Your task to perform on an android device: Open Google Maps and go to "Timeline" Image 0: 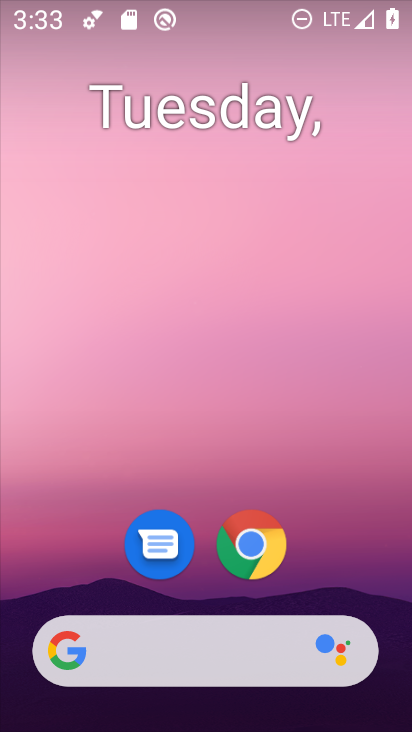
Step 0: drag from (385, 580) to (387, 106)
Your task to perform on an android device: Open Google Maps and go to "Timeline" Image 1: 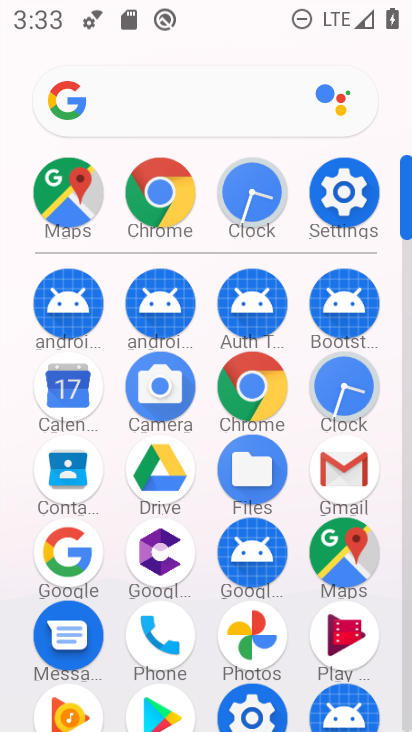
Step 1: click (362, 558)
Your task to perform on an android device: Open Google Maps and go to "Timeline" Image 2: 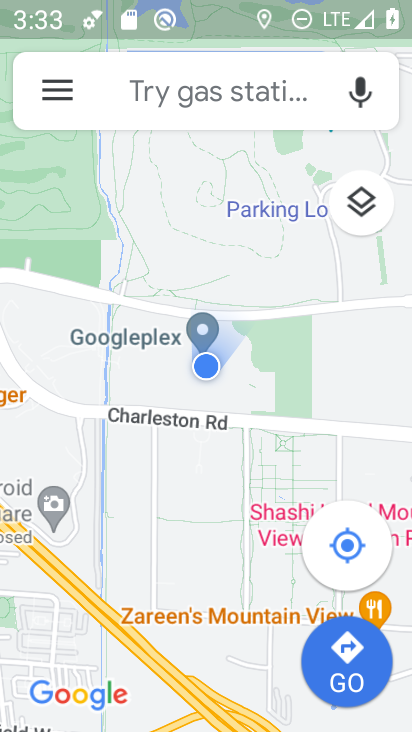
Step 2: click (63, 97)
Your task to perform on an android device: Open Google Maps and go to "Timeline" Image 3: 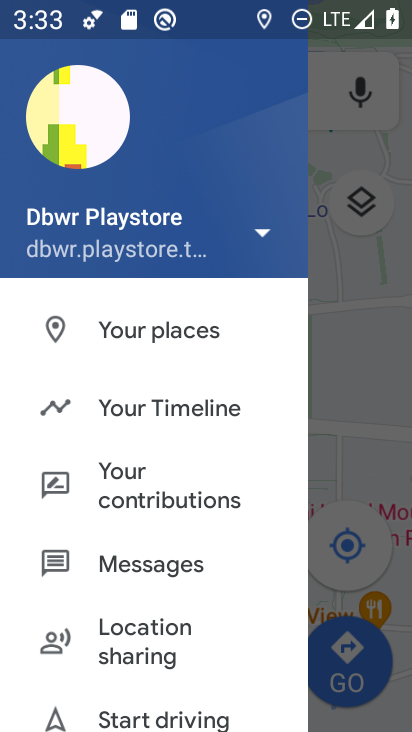
Step 3: drag from (266, 634) to (255, 443)
Your task to perform on an android device: Open Google Maps and go to "Timeline" Image 4: 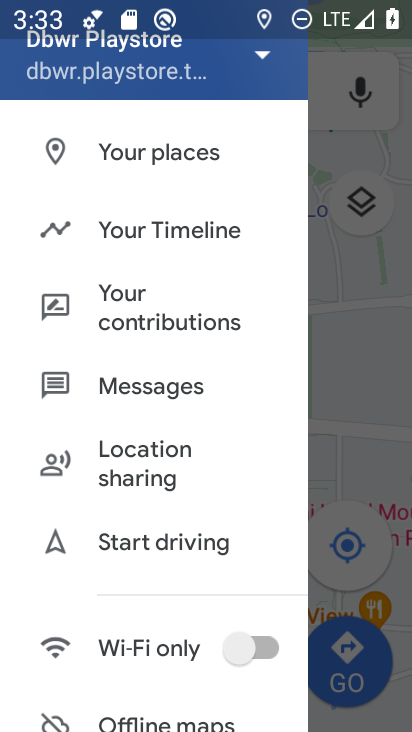
Step 4: drag from (207, 572) to (213, 426)
Your task to perform on an android device: Open Google Maps and go to "Timeline" Image 5: 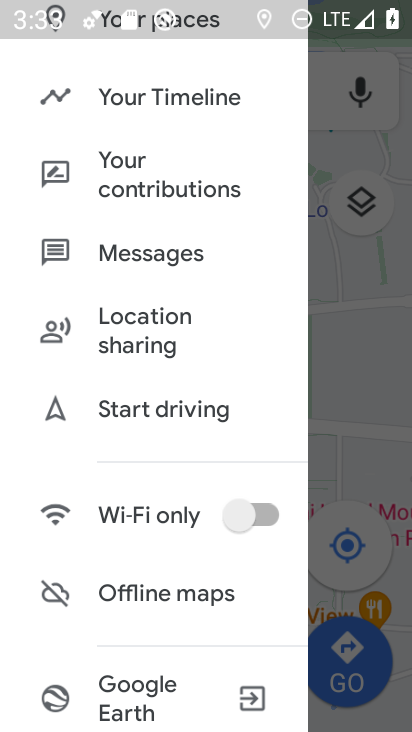
Step 5: drag from (213, 643) to (194, 479)
Your task to perform on an android device: Open Google Maps and go to "Timeline" Image 6: 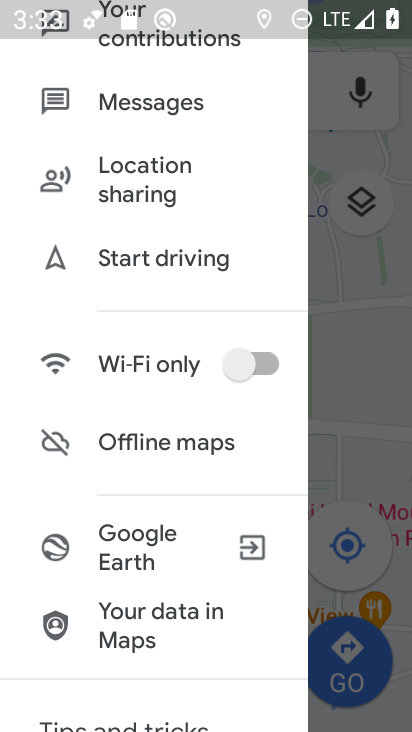
Step 6: drag from (224, 578) to (207, 391)
Your task to perform on an android device: Open Google Maps and go to "Timeline" Image 7: 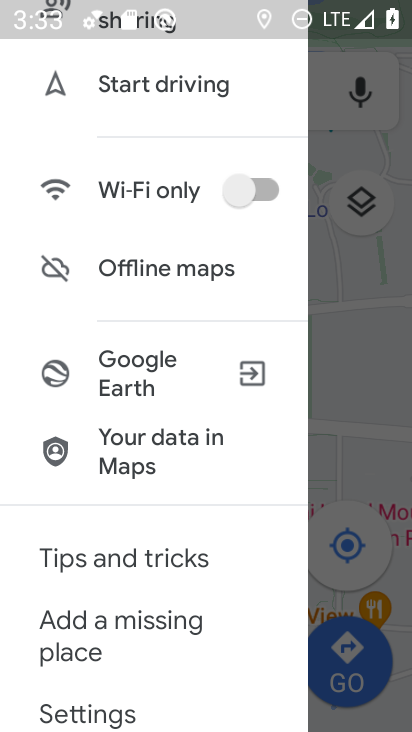
Step 7: drag from (207, 311) to (194, 474)
Your task to perform on an android device: Open Google Maps and go to "Timeline" Image 8: 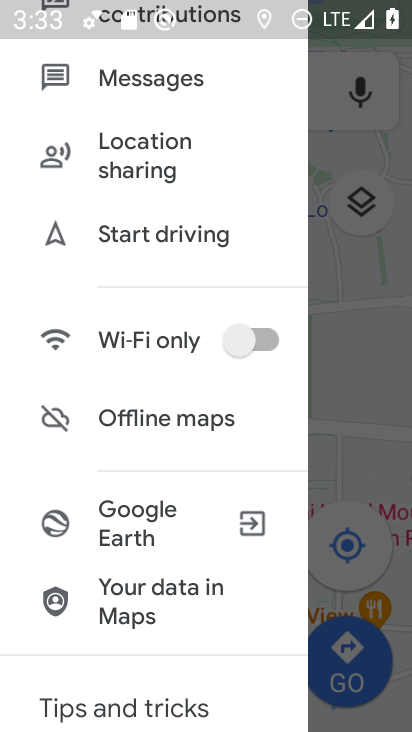
Step 8: drag from (197, 267) to (188, 420)
Your task to perform on an android device: Open Google Maps and go to "Timeline" Image 9: 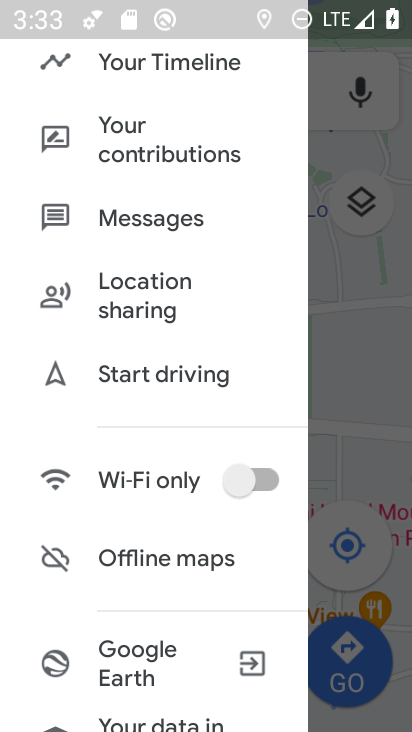
Step 9: drag from (221, 241) to (213, 379)
Your task to perform on an android device: Open Google Maps and go to "Timeline" Image 10: 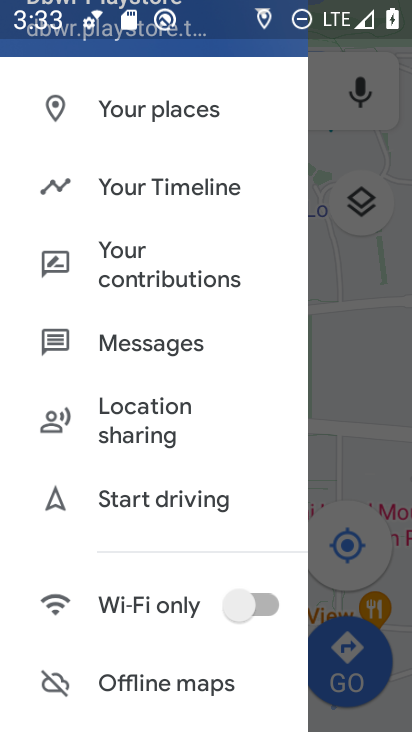
Step 10: drag from (219, 213) to (220, 372)
Your task to perform on an android device: Open Google Maps and go to "Timeline" Image 11: 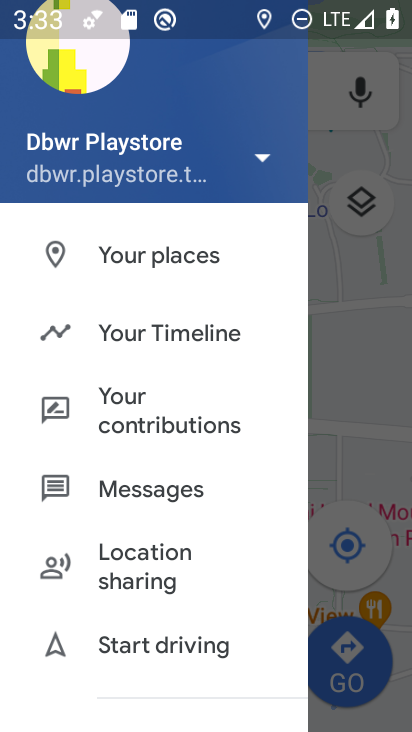
Step 11: click (210, 335)
Your task to perform on an android device: Open Google Maps and go to "Timeline" Image 12: 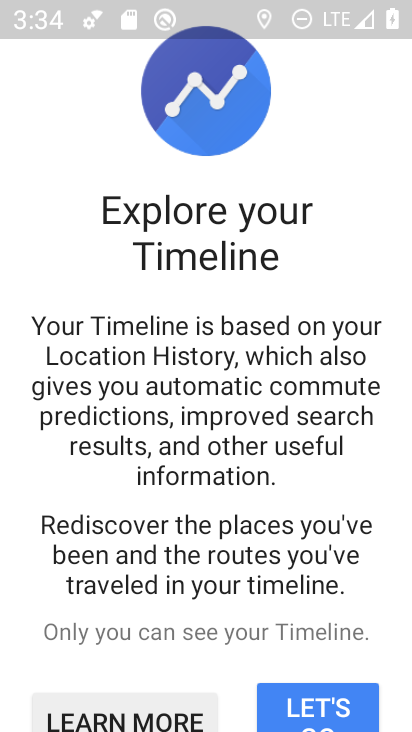
Step 12: task complete